Your task to perform on an android device: add a contact Image 0: 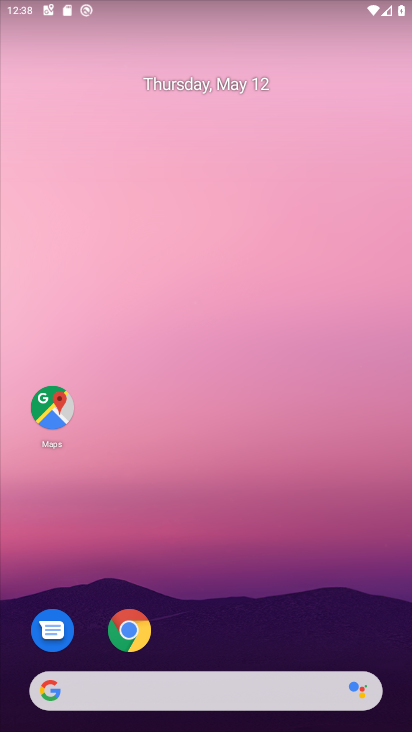
Step 0: drag from (197, 593) to (255, 93)
Your task to perform on an android device: add a contact Image 1: 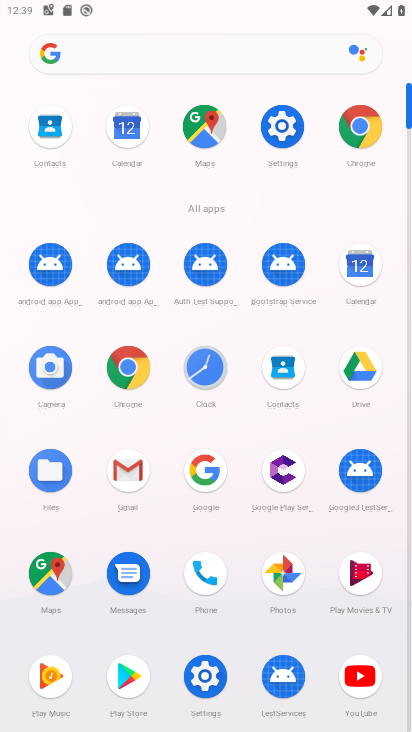
Step 1: click (290, 363)
Your task to perform on an android device: add a contact Image 2: 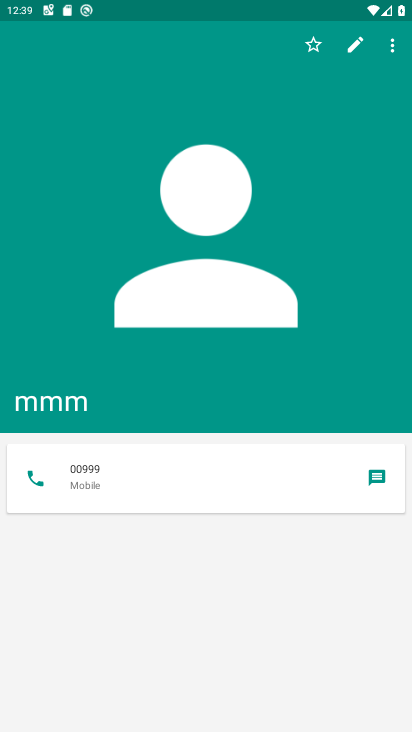
Step 2: press back button
Your task to perform on an android device: add a contact Image 3: 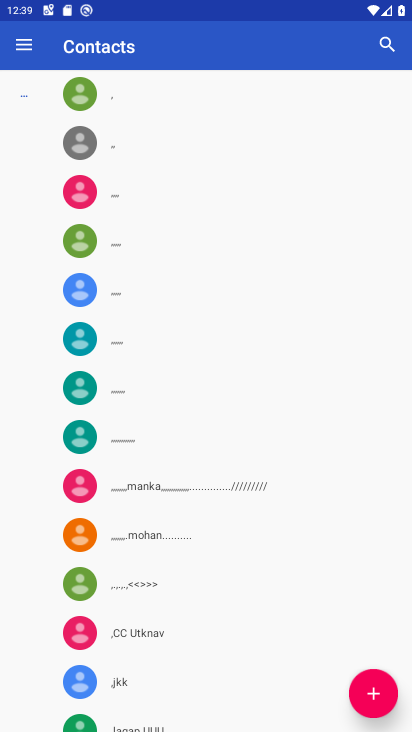
Step 3: click (368, 684)
Your task to perform on an android device: add a contact Image 4: 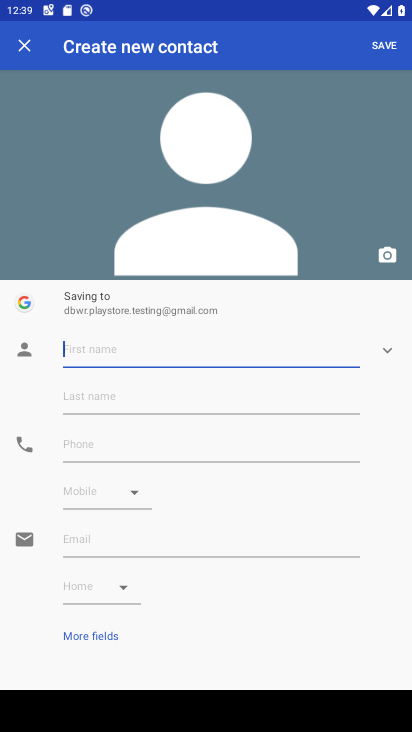
Step 4: type "nbkk"
Your task to perform on an android device: add a contact Image 5: 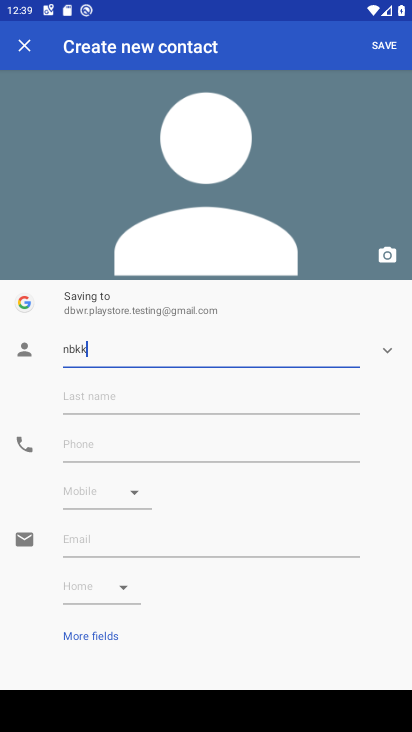
Step 5: click (86, 445)
Your task to perform on an android device: add a contact Image 6: 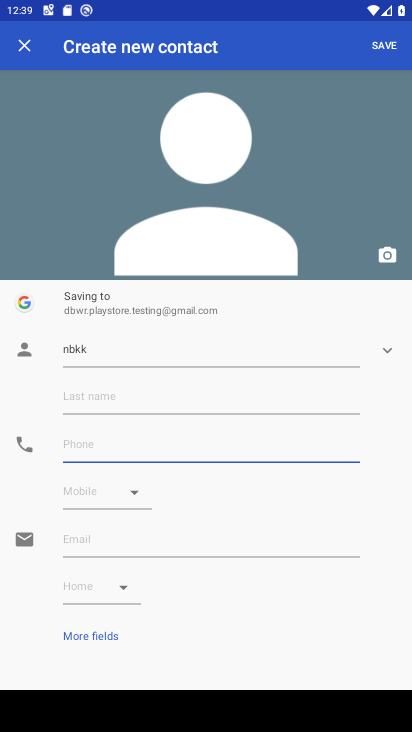
Step 6: type "7665"
Your task to perform on an android device: add a contact Image 7: 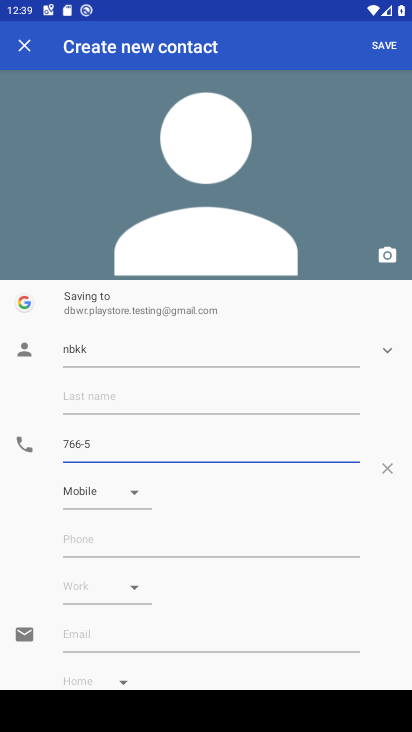
Step 7: click (379, 40)
Your task to perform on an android device: add a contact Image 8: 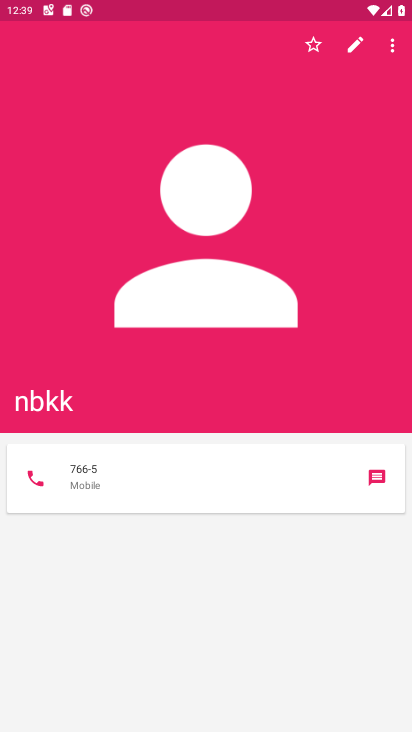
Step 8: task complete